Your task to perform on an android device: Open Google Chrome and click the shortcut for Amazon.com Image 0: 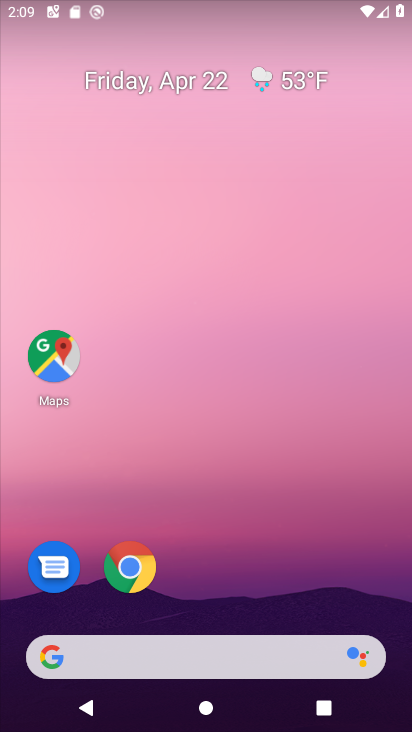
Step 0: click (133, 569)
Your task to perform on an android device: Open Google Chrome and click the shortcut for Amazon.com Image 1: 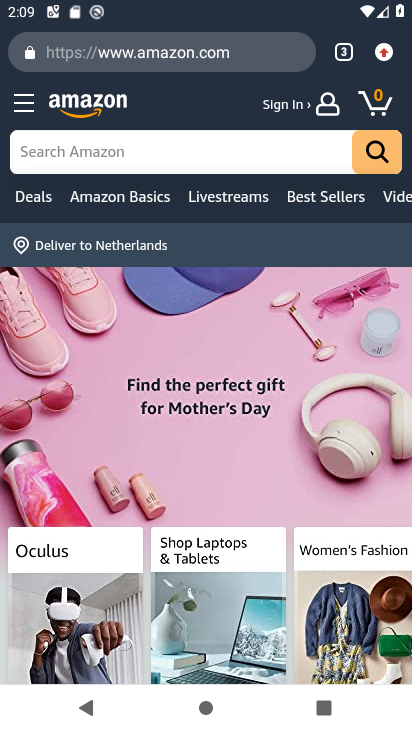
Step 1: drag from (380, 51) to (262, 165)
Your task to perform on an android device: Open Google Chrome and click the shortcut for Amazon.com Image 2: 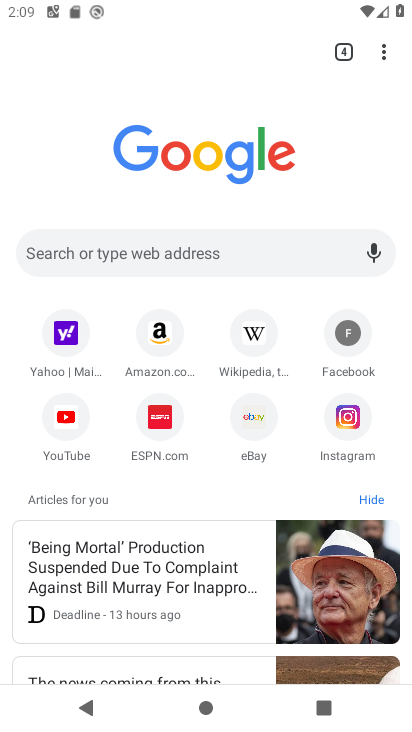
Step 2: click (160, 328)
Your task to perform on an android device: Open Google Chrome and click the shortcut for Amazon.com Image 3: 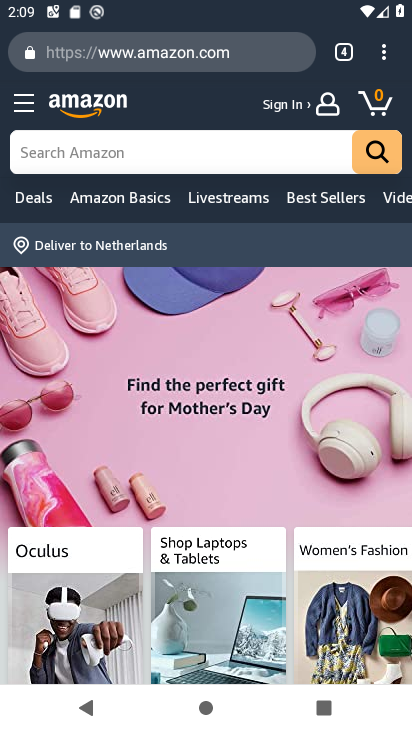
Step 3: task complete